Your task to perform on an android device: turn off notifications in google photos Image 0: 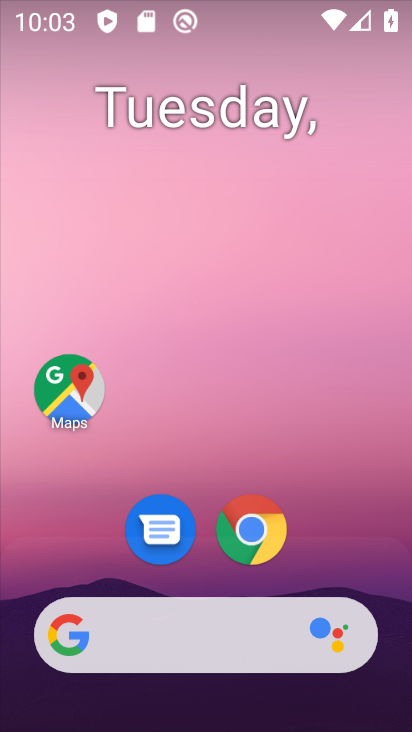
Step 0: drag from (88, 580) to (206, 122)
Your task to perform on an android device: turn off notifications in google photos Image 1: 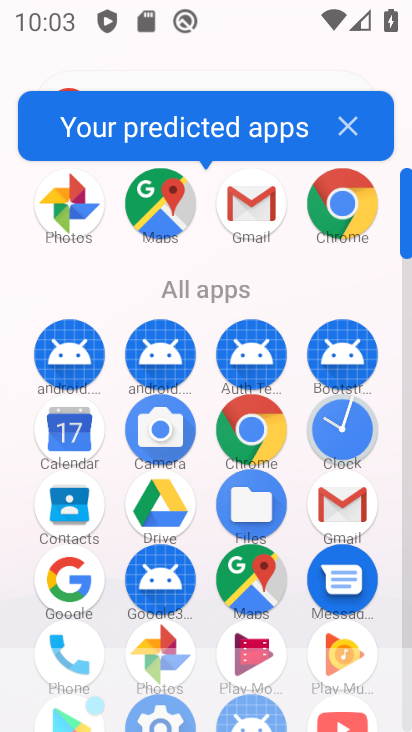
Step 1: click (161, 650)
Your task to perform on an android device: turn off notifications in google photos Image 2: 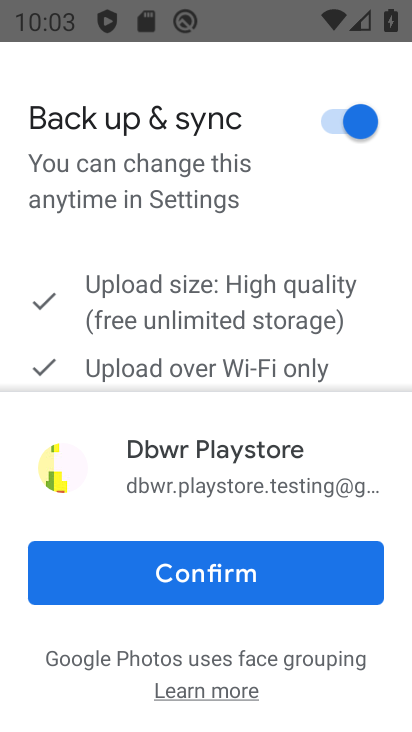
Step 2: click (225, 579)
Your task to perform on an android device: turn off notifications in google photos Image 3: 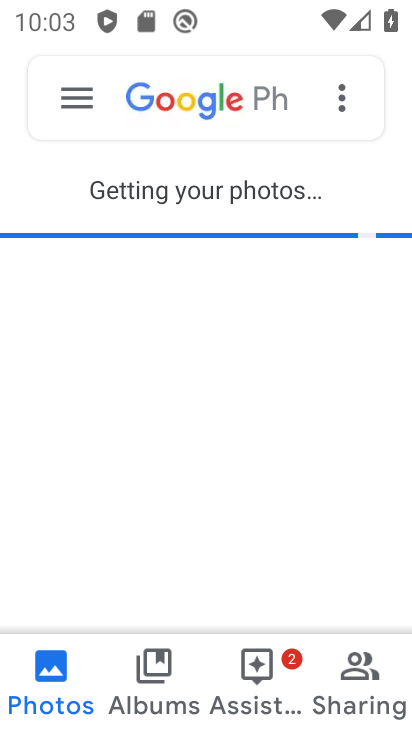
Step 3: click (78, 105)
Your task to perform on an android device: turn off notifications in google photos Image 4: 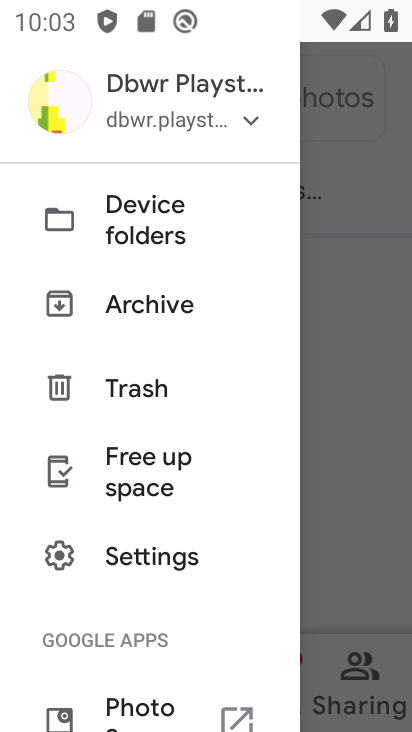
Step 4: drag from (141, 614) to (220, 278)
Your task to perform on an android device: turn off notifications in google photos Image 5: 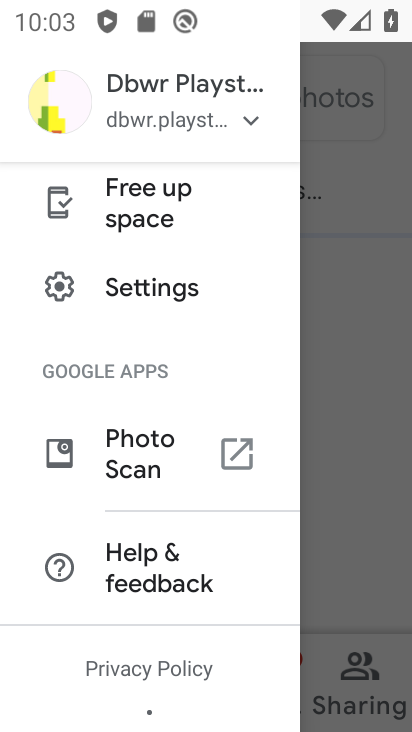
Step 5: click (194, 298)
Your task to perform on an android device: turn off notifications in google photos Image 6: 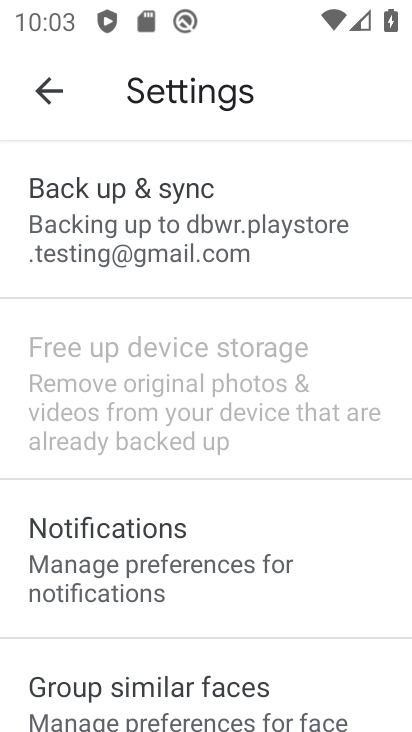
Step 6: click (195, 575)
Your task to perform on an android device: turn off notifications in google photos Image 7: 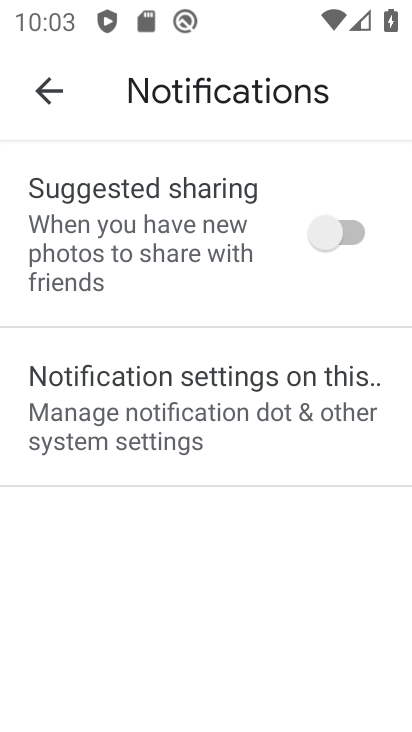
Step 7: click (207, 472)
Your task to perform on an android device: turn off notifications in google photos Image 8: 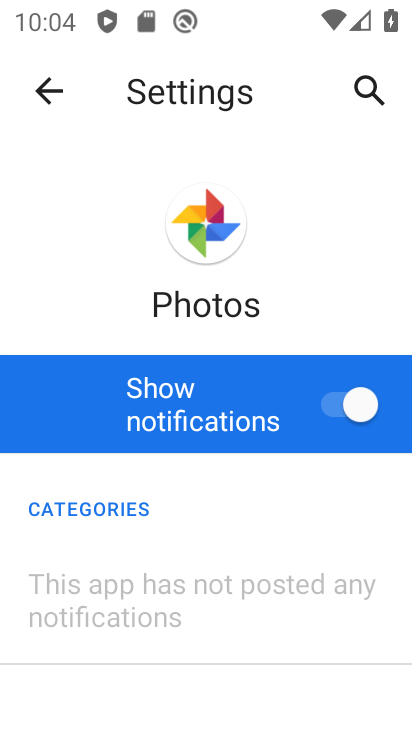
Step 8: click (316, 399)
Your task to perform on an android device: turn off notifications in google photos Image 9: 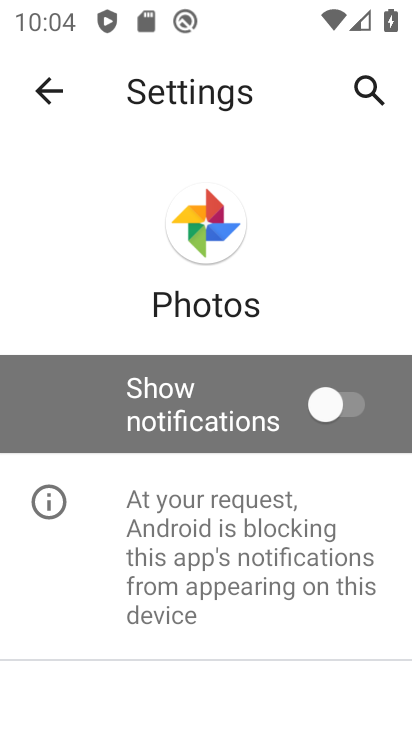
Step 9: task complete